Your task to perform on an android device: Open Chrome and go to settings Image 0: 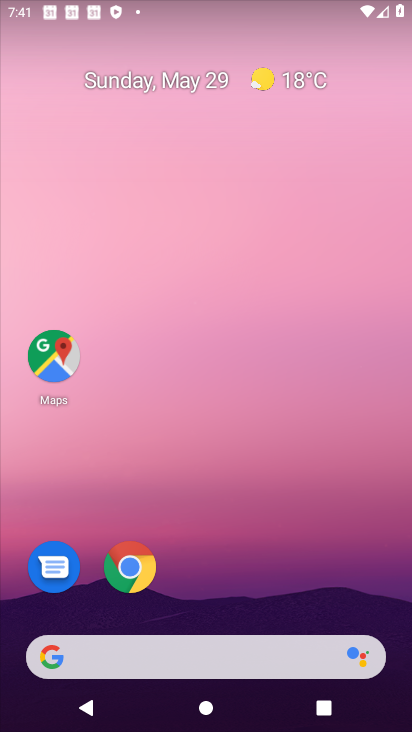
Step 0: click (129, 571)
Your task to perform on an android device: Open Chrome and go to settings Image 1: 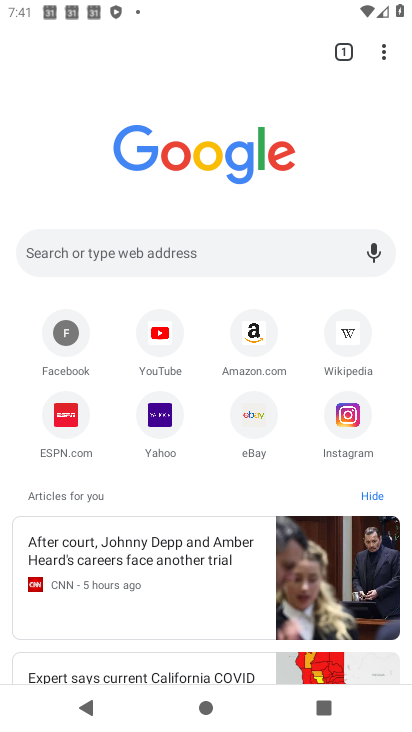
Step 1: click (385, 50)
Your task to perform on an android device: Open Chrome and go to settings Image 2: 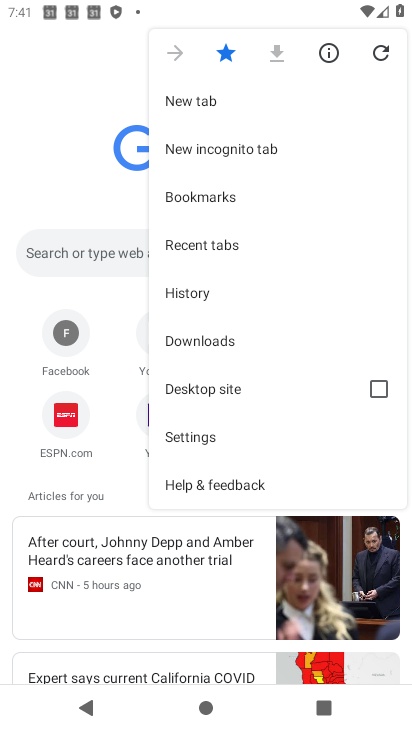
Step 2: click (176, 437)
Your task to perform on an android device: Open Chrome and go to settings Image 3: 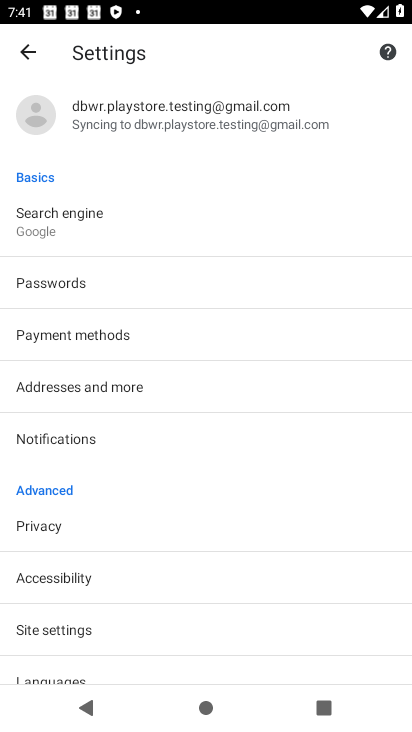
Step 3: task complete